Your task to perform on an android device: turn vacation reply on in the gmail app Image 0: 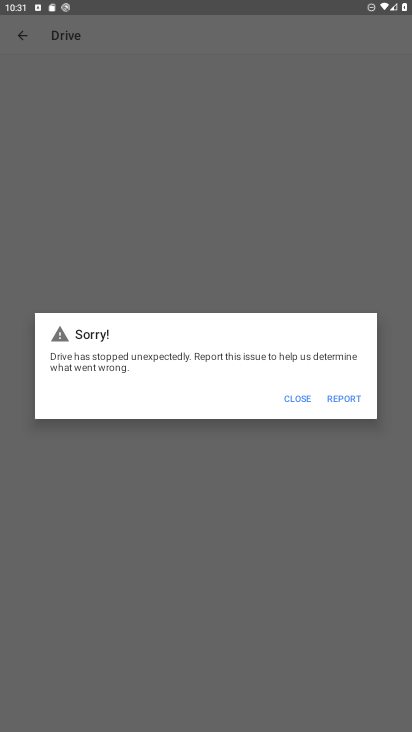
Step 0: press home button
Your task to perform on an android device: turn vacation reply on in the gmail app Image 1: 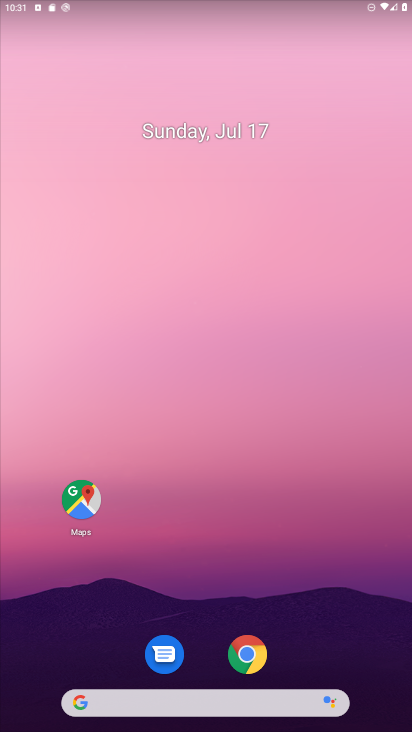
Step 1: drag from (210, 629) to (212, 78)
Your task to perform on an android device: turn vacation reply on in the gmail app Image 2: 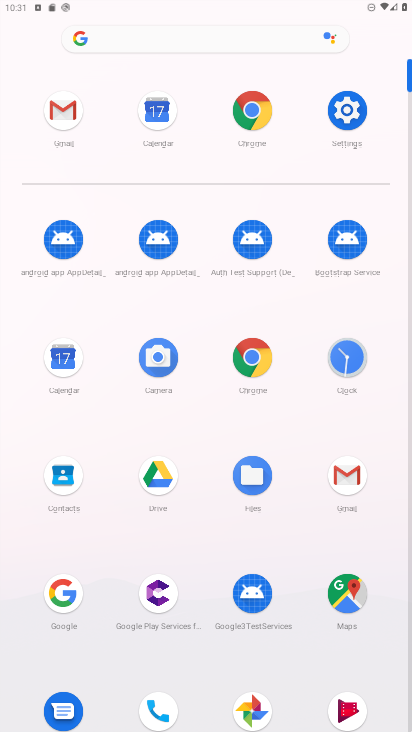
Step 2: click (323, 471)
Your task to perform on an android device: turn vacation reply on in the gmail app Image 3: 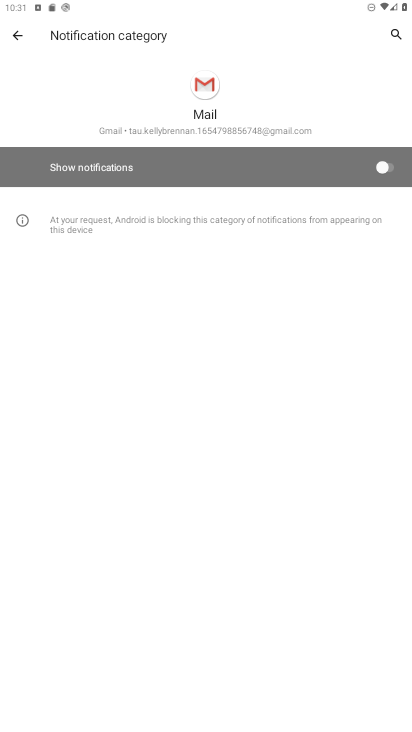
Step 3: click (20, 38)
Your task to perform on an android device: turn vacation reply on in the gmail app Image 4: 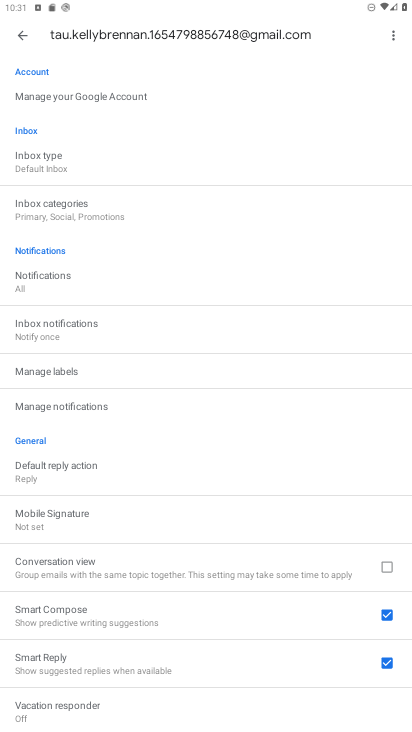
Step 4: click (83, 697)
Your task to perform on an android device: turn vacation reply on in the gmail app Image 5: 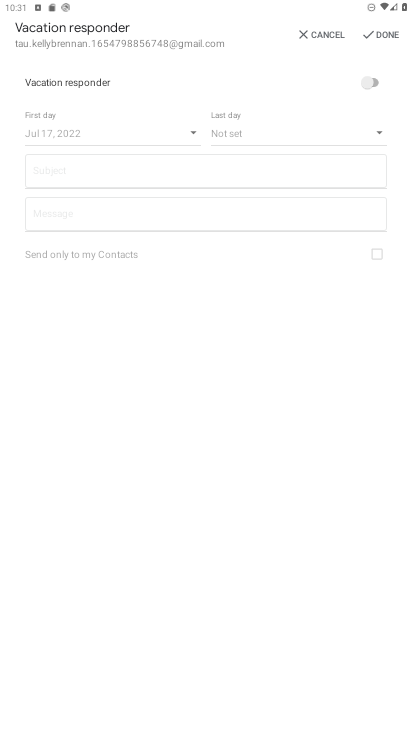
Step 5: click (378, 83)
Your task to perform on an android device: turn vacation reply on in the gmail app Image 6: 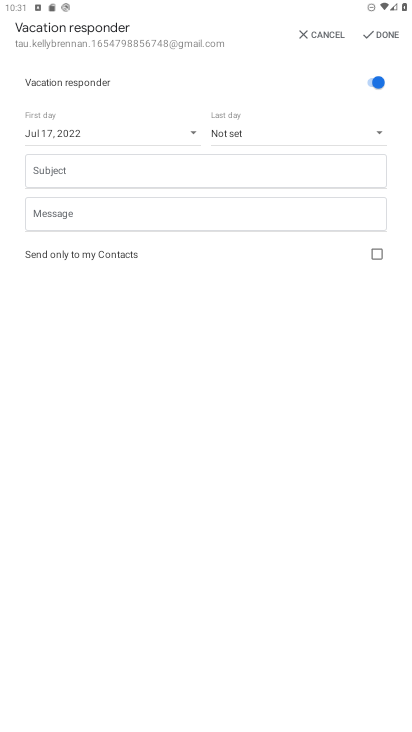
Step 6: task complete